Your task to perform on an android device: Show me productivity apps on the Play Store Image 0: 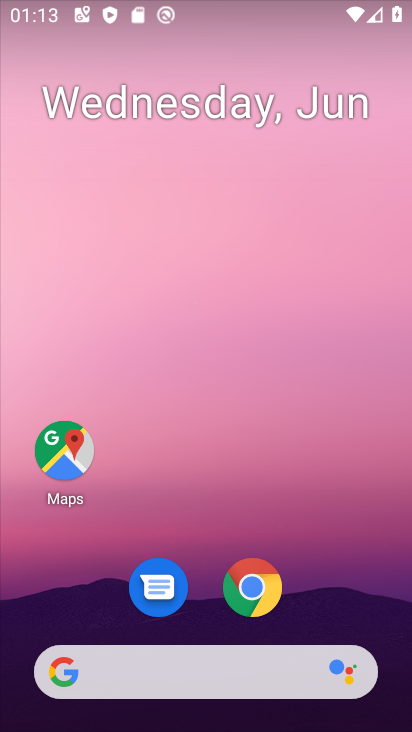
Step 0: drag from (329, 519) to (310, 111)
Your task to perform on an android device: Show me productivity apps on the Play Store Image 1: 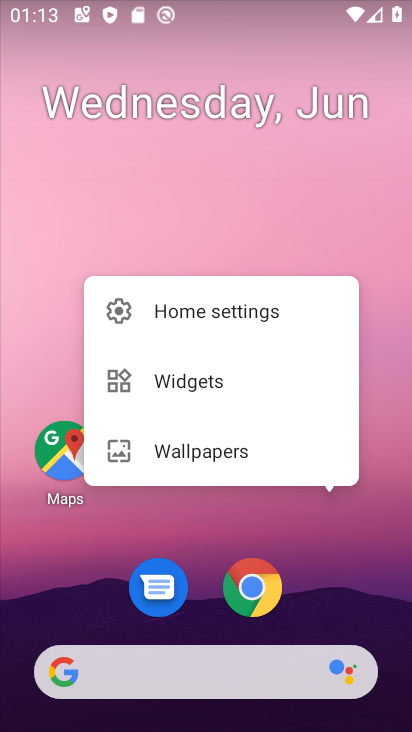
Step 1: click (347, 178)
Your task to perform on an android device: Show me productivity apps on the Play Store Image 2: 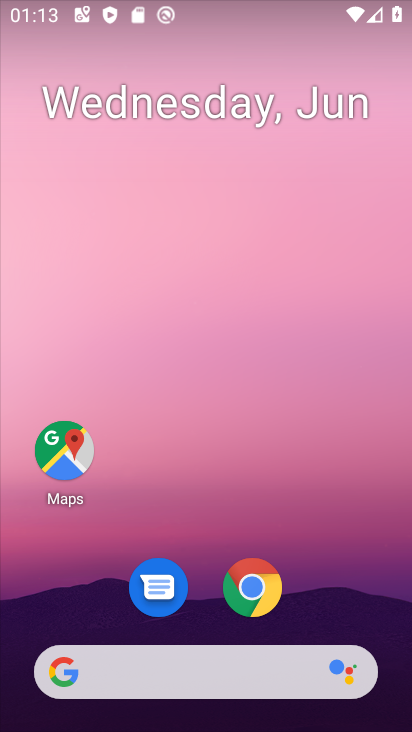
Step 2: drag from (323, 559) to (268, 125)
Your task to perform on an android device: Show me productivity apps on the Play Store Image 3: 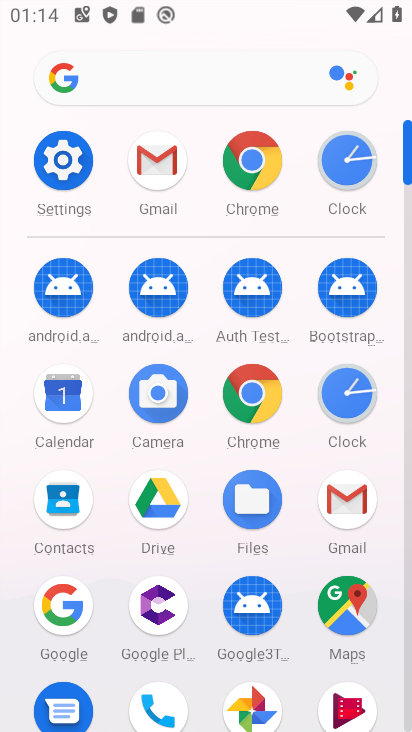
Step 3: drag from (296, 579) to (299, 192)
Your task to perform on an android device: Show me productivity apps on the Play Store Image 4: 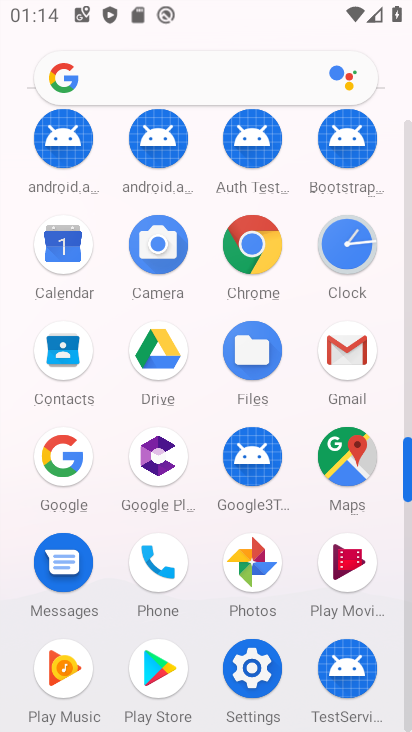
Step 4: click (154, 666)
Your task to perform on an android device: Show me productivity apps on the Play Store Image 5: 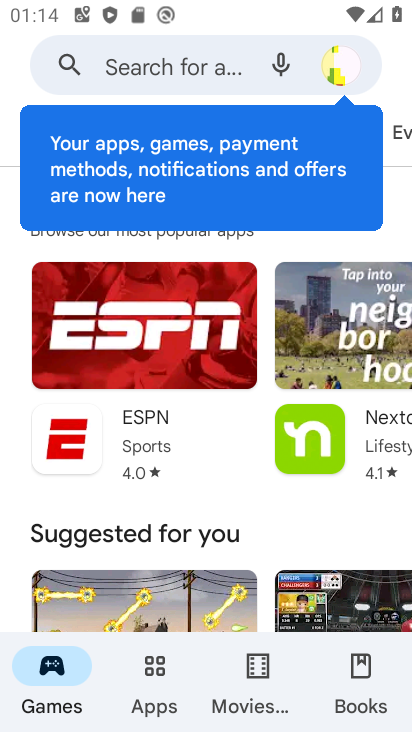
Step 5: click (170, 675)
Your task to perform on an android device: Show me productivity apps on the Play Store Image 6: 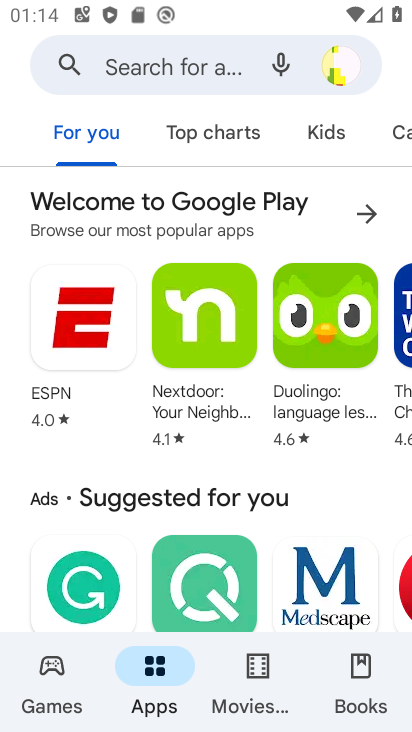
Step 6: drag from (243, 557) to (269, 148)
Your task to perform on an android device: Show me productivity apps on the Play Store Image 7: 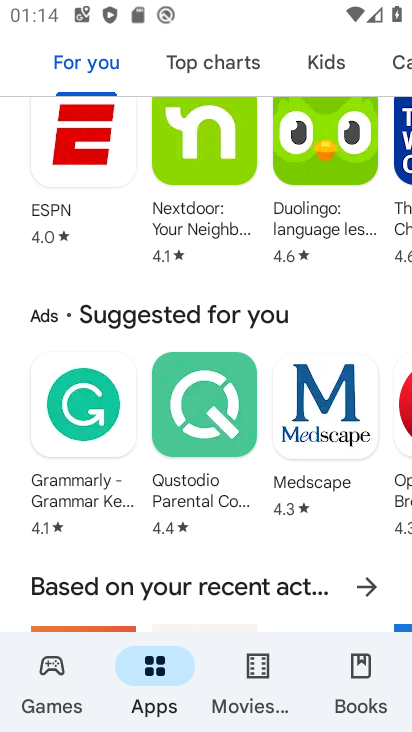
Step 7: drag from (323, 508) to (298, 165)
Your task to perform on an android device: Show me productivity apps on the Play Store Image 8: 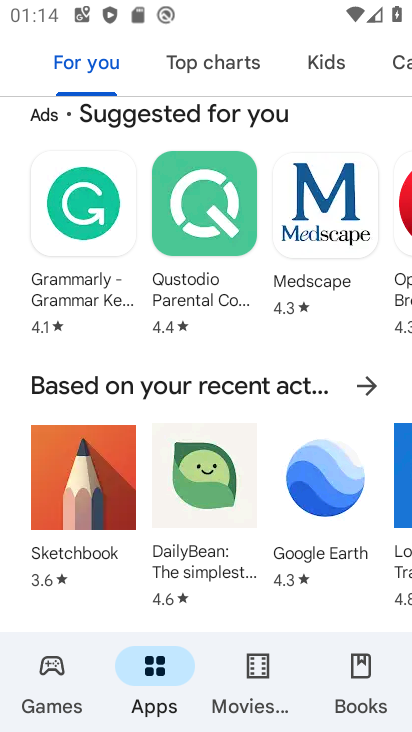
Step 8: drag from (263, 608) to (267, 190)
Your task to perform on an android device: Show me productivity apps on the Play Store Image 9: 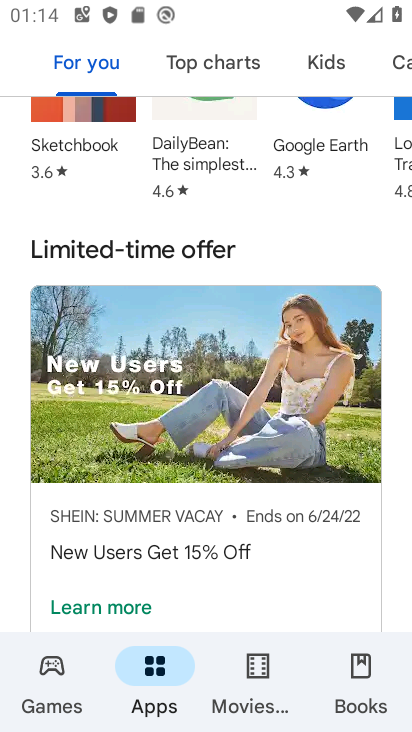
Step 9: drag from (307, 607) to (335, 101)
Your task to perform on an android device: Show me productivity apps on the Play Store Image 10: 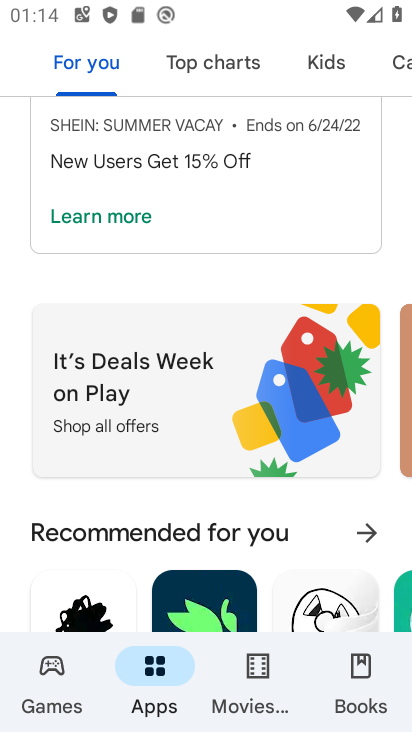
Step 10: drag from (278, 556) to (256, 75)
Your task to perform on an android device: Show me productivity apps on the Play Store Image 11: 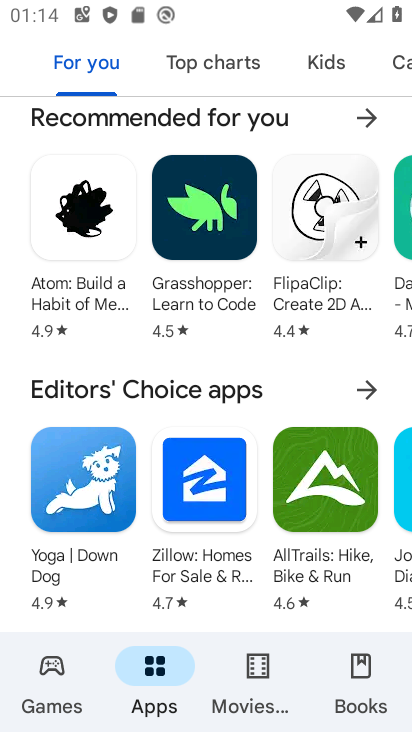
Step 11: drag from (259, 522) to (288, 119)
Your task to perform on an android device: Show me productivity apps on the Play Store Image 12: 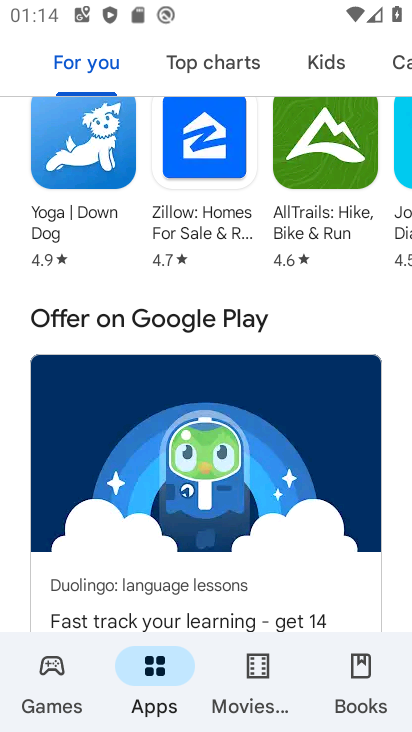
Step 12: drag from (301, 564) to (275, 194)
Your task to perform on an android device: Show me productivity apps on the Play Store Image 13: 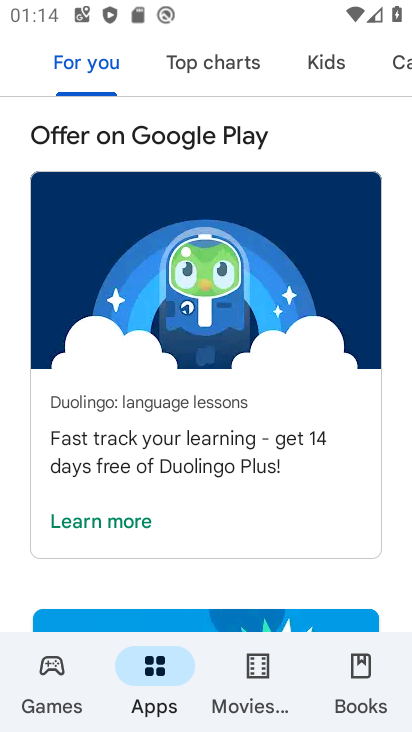
Step 13: drag from (270, 578) to (238, 120)
Your task to perform on an android device: Show me productivity apps on the Play Store Image 14: 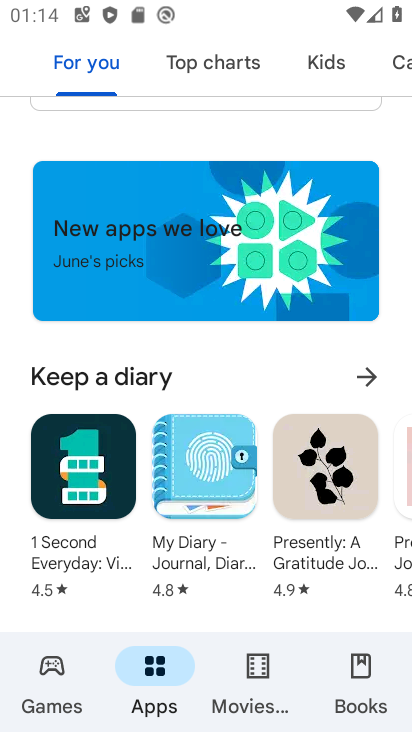
Step 14: drag from (292, 600) to (313, 169)
Your task to perform on an android device: Show me productivity apps on the Play Store Image 15: 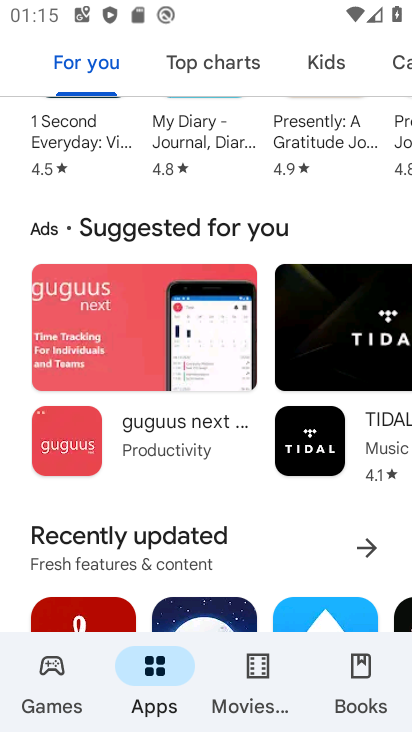
Step 15: drag from (305, 423) to (270, 171)
Your task to perform on an android device: Show me productivity apps on the Play Store Image 16: 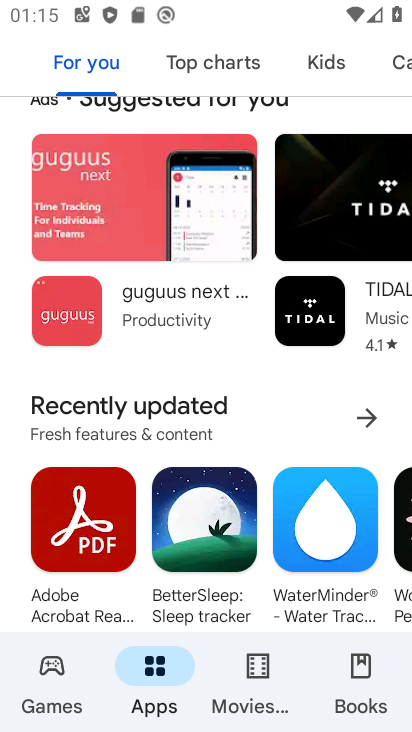
Step 16: drag from (289, 629) to (288, 182)
Your task to perform on an android device: Show me productivity apps on the Play Store Image 17: 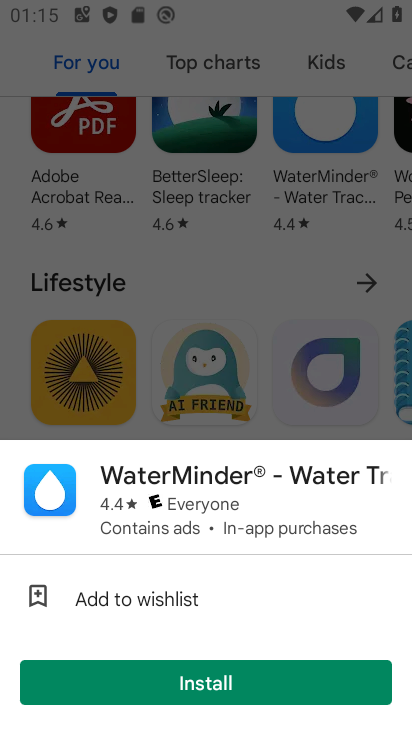
Step 17: click (280, 314)
Your task to perform on an android device: Show me productivity apps on the Play Store Image 18: 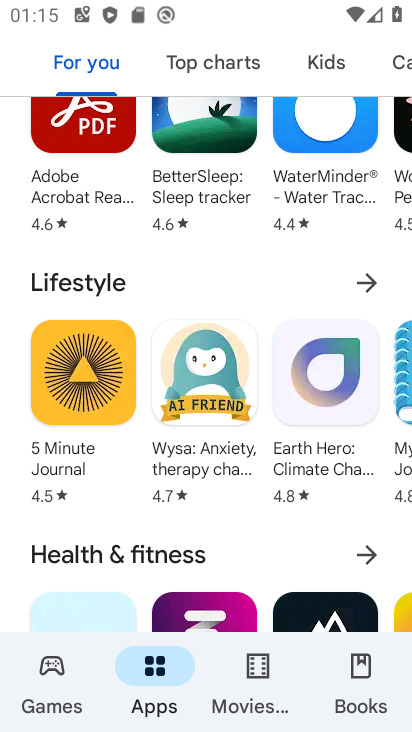
Step 18: drag from (269, 511) to (291, 126)
Your task to perform on an android device: Show me productivity apps on the Play Store Image 19: 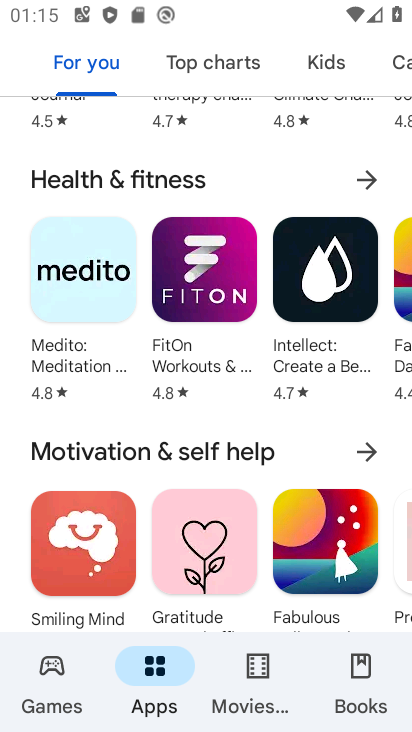
Step 19: drag from (268, 517) to (289, 184)
Your task to perform on an android device: Show me productivity apps on the Play Store Image 20: 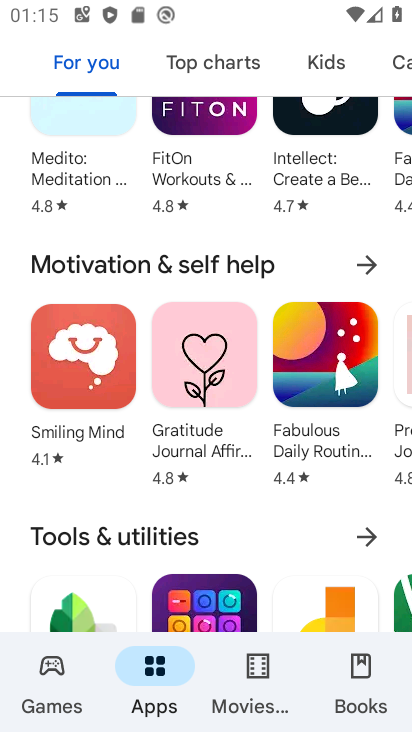
Step 20: drag from (272, 528) to (320, 92)
Your task to perform on an android device: Show me productivity apps on the Play Store Image 21: 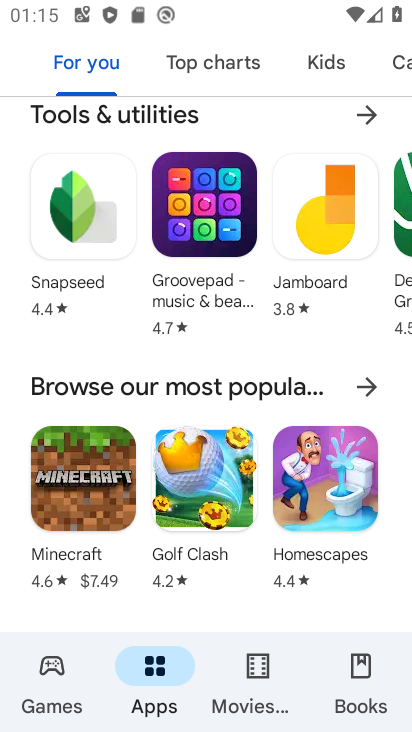
Step 21: drag from (236, 585) to (267, 33)
Your task to perform on an android device: Show me productivity apps on the Play Store Image 22: 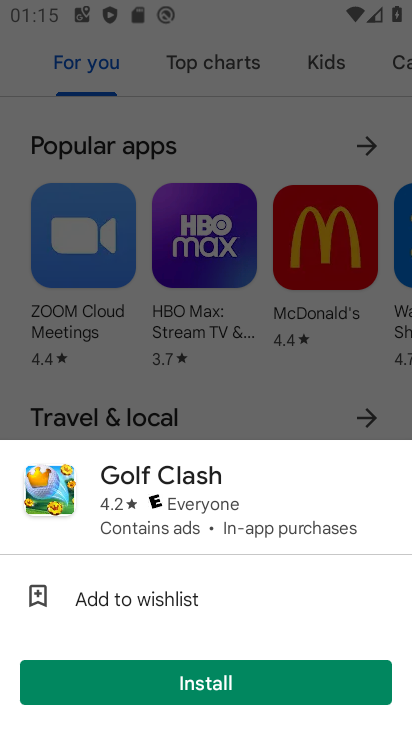
Step 22: click (261, 360)
Your task to perform on an android device: Show me productivity apps on the Play Store Image 23: 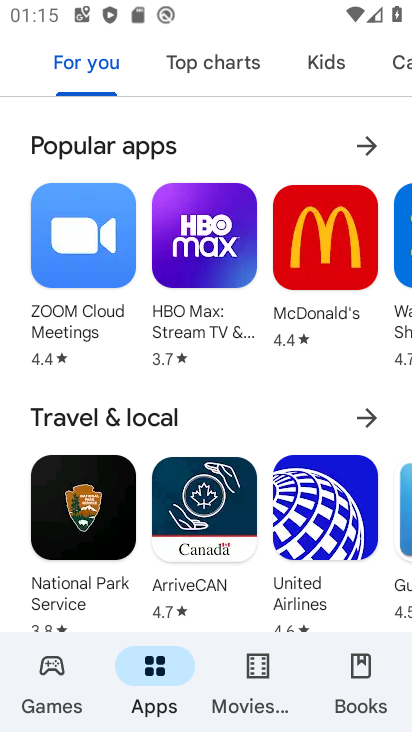
Step 23: task complete